Your task to perform on an android device: Go to location settings Image 0: 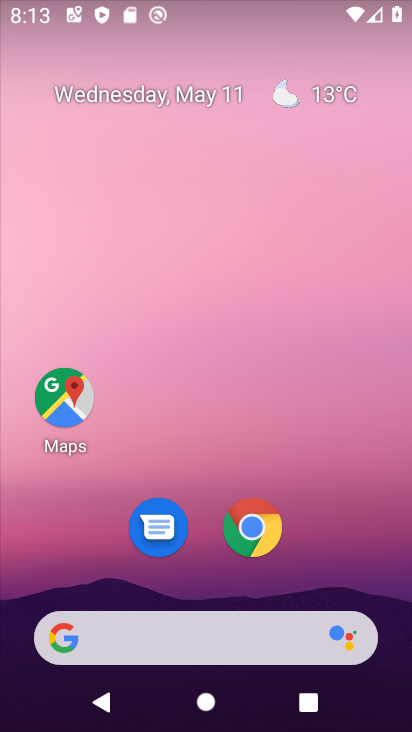
Step 0: drag from (109, 606) to (167, 168)
Your task to perform on an android device: Go to location settings Image 1: 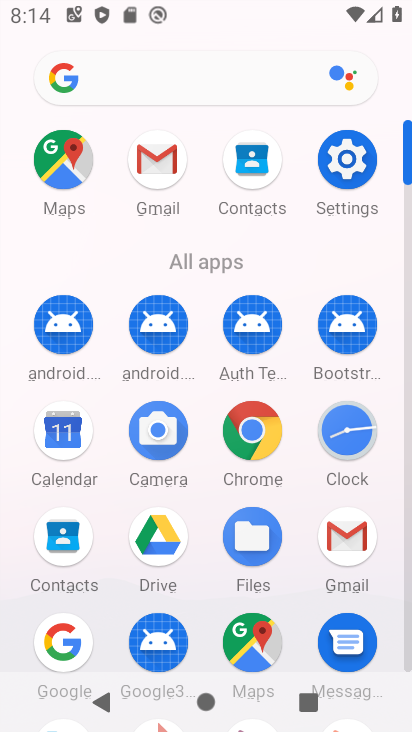
Step 1: drag from (179, 650) to (224, 332)
Your task to perform on an android device: Go to location settings Image 2: 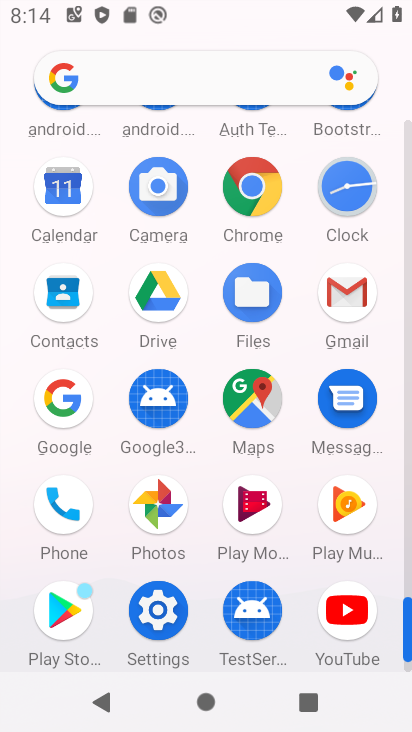
Step 2: click (173, 615)
Your task to perform on an android device: Go to location settings Image 3: 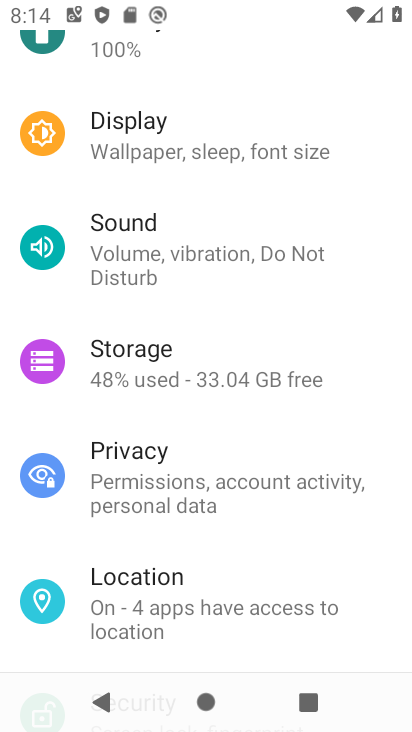
Step 3: click (153, 570)
Your task to perform on an android device: Go to location settings Image 4: 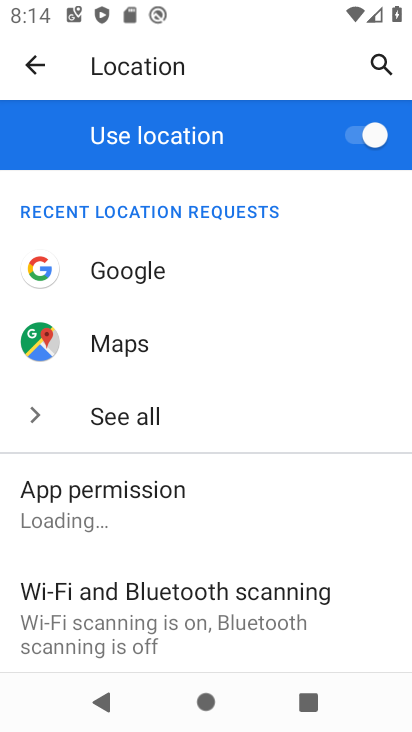
Step 4: task complete